Your task to perform on an android device: open wifi settings Image 0: 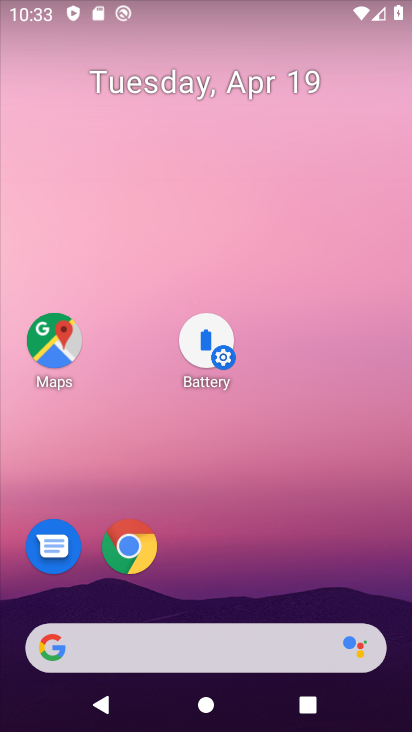
Step 0: drag from (162, 265) to (185, 437)
Your task to perform on an android device: open wifi settings Image 1: 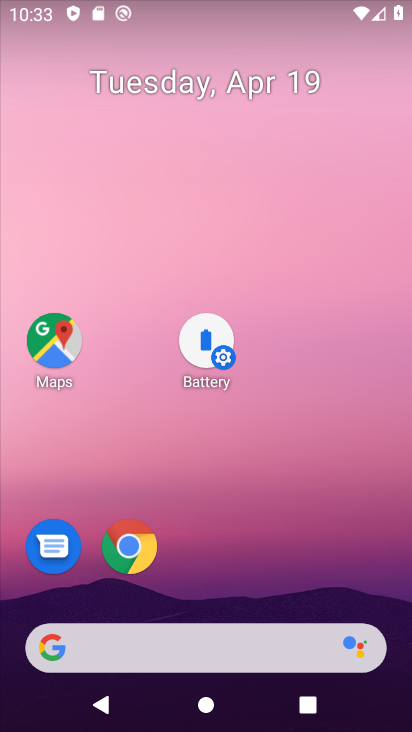
Step 1: drag from (254, 72) to (228, 333)
Your task to perform on an android device: open wifi settings Image 2: 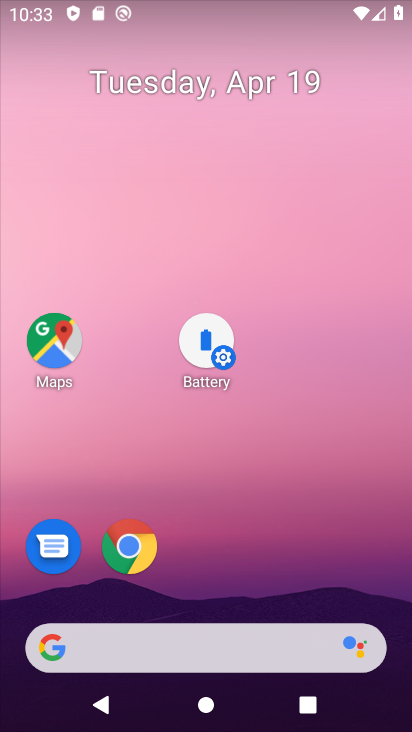
Step 2: drag from (95, 12) to (146, 361)
Your task to perform on an android device: open wifi settings Image 3: 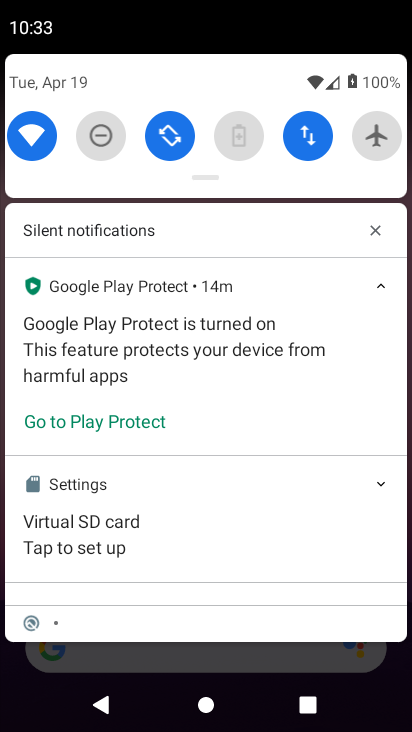
Step 3: click (34, 140)
Your task to perform on an android device: open wifi settings Image 4: 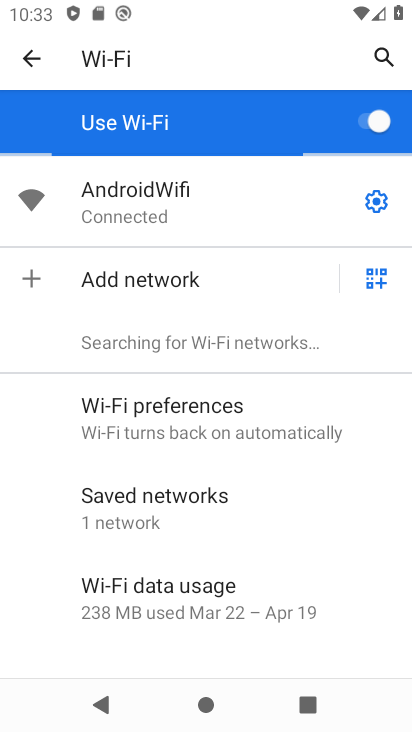
Step 4: task complete